Your task to perform on an android device: Empty the shopping cart on costco. Search for logitech g pro on costco, select the first entry, add it to the cart, then select checkout. Image 0: 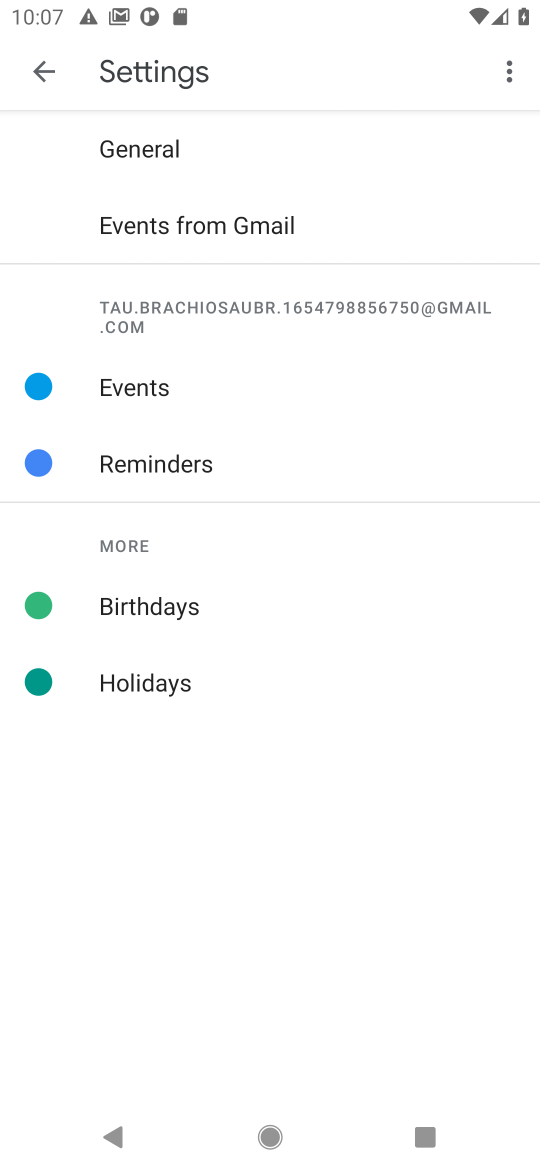
Step 0: press home button
Your task to perform on an android device: Empty the shopping cart on costco. Search for logitech g pro on costco, select the first entry, add it to the cart, then select checkout. Image 1: 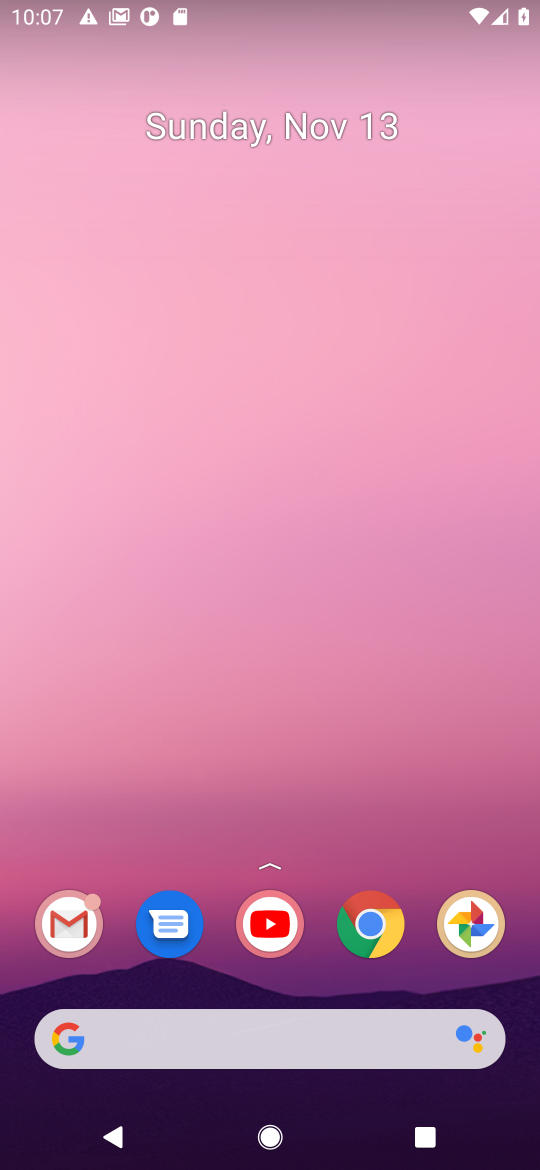
Step 1: click (370, 939)
Your task to perform on an android device: Empty the shopping cart on costco. Search for logitech g pro on costco, select the first entry, add it to the cart, then select checkout. Image 2: 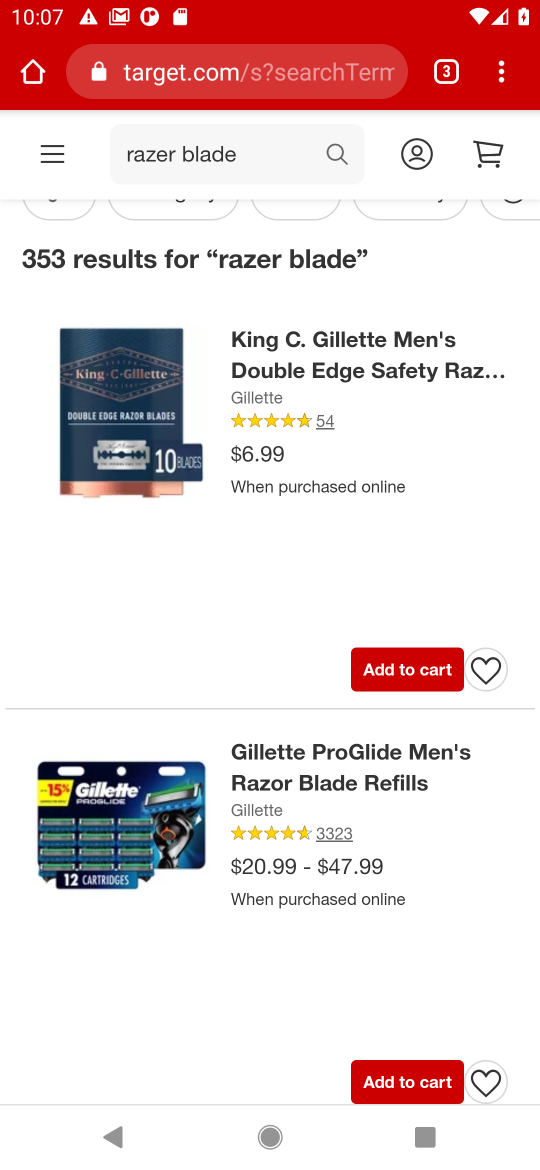
Step 2: click (208, 85)
Your task to perform on an android device: Empty the shopping cart on costco. Search for logitech g pro on costco, select the first entry, add it to the cart, then select checkout. Image 3: 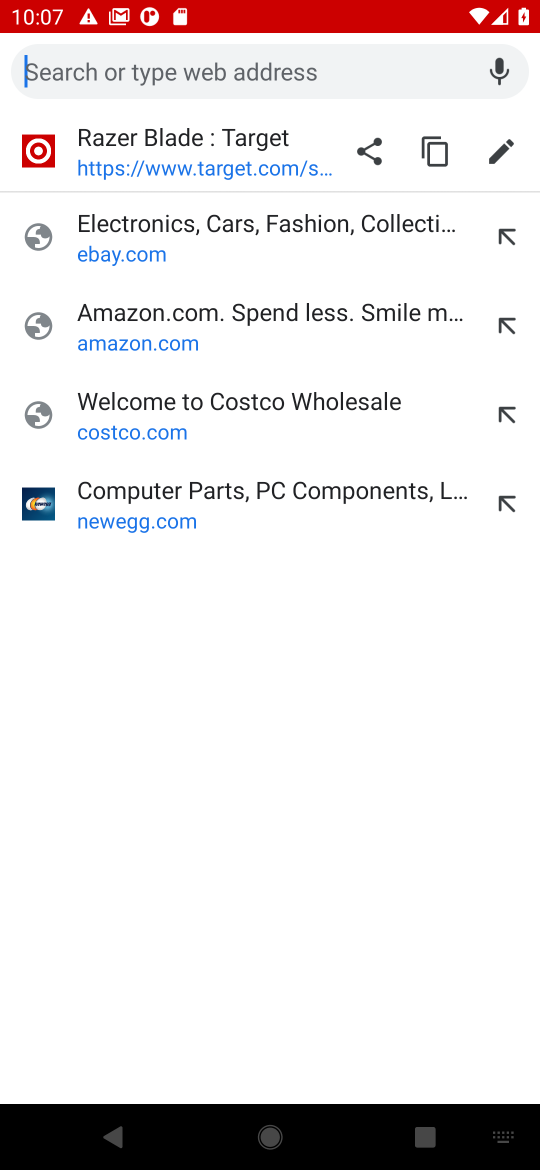
Step 3: click (132, 442)
Your task to perform on an android device: Empty the shopping cart on costco. Search for logitech g pro on costco, select the first entry, add it to the cart, then select checkout. Image 4: 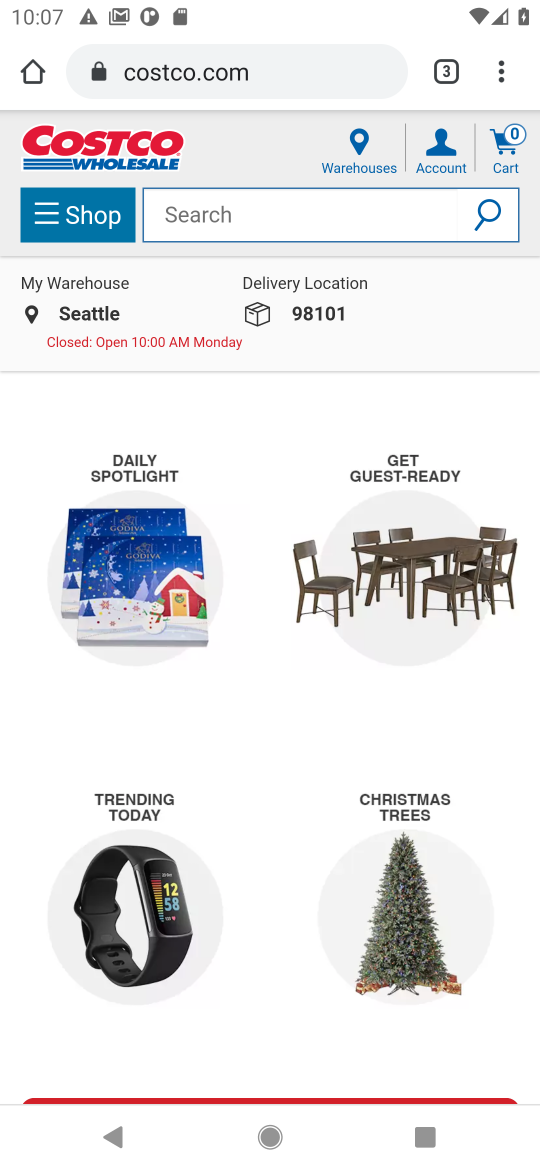
Step 4: click (510, 145)
Your task to perform on an android device: Empty the shopping cart on costco. Search for logitech g pro on costco, select the first entry, add it to the cart, then select checkout. Image 5: 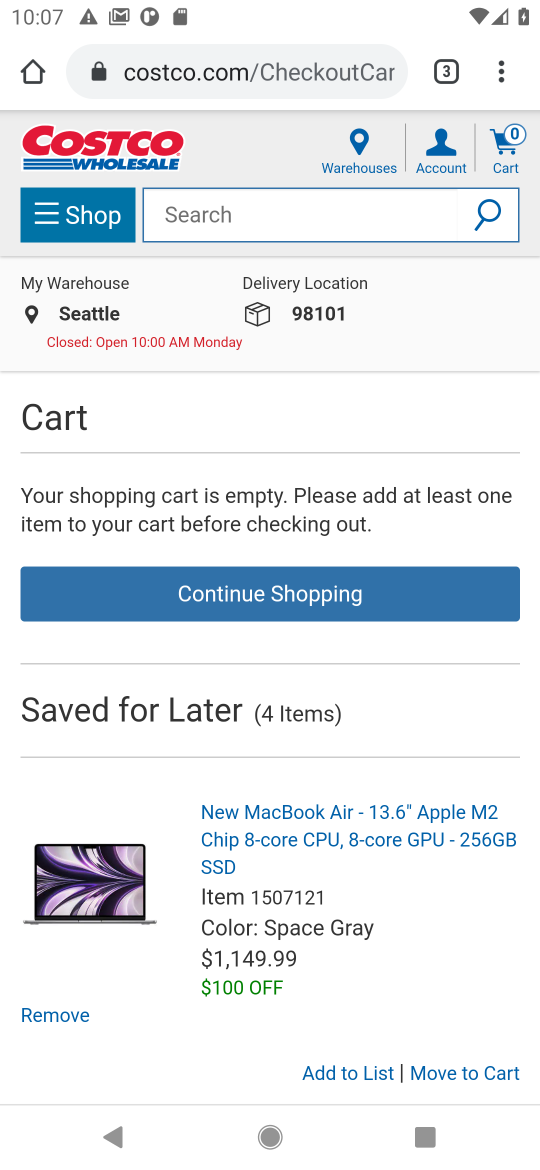
Step 5: click (189, 212)
Your task to perform on an android device: Empty the shopping cart on costco. Search for logitech g pro on costco, select the first entry, add it to the cart, then select checkout. Image 6: 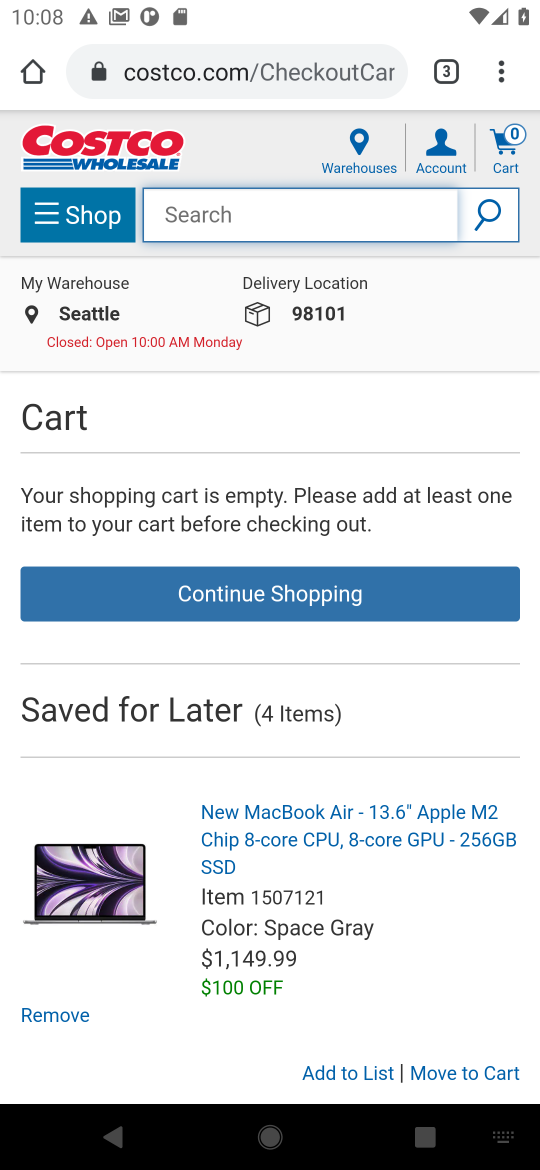
Step 6: type "logitech g pro "
Your task to perform on an android device: Empty the shopping cart on costco. Search for logitech g pro on costco, select the first entry, add it to the cart, then select checkout. Image 7: 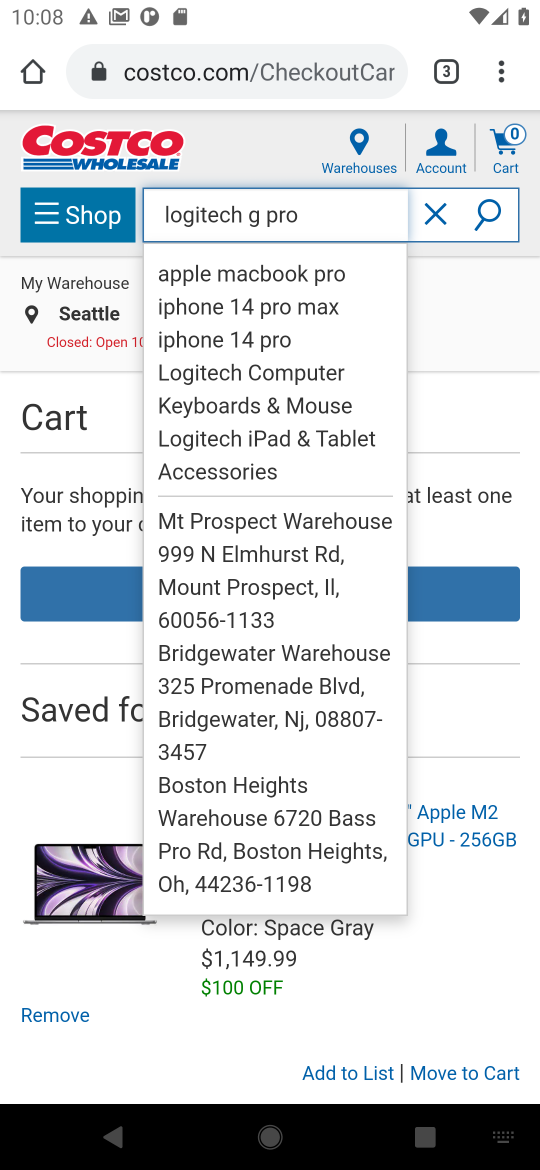
Step 7: click (490, 217)
Your task to perform on an android device: Empty the shopping cart on costco. Search for logitech g pro on costco, select the first entry, add it to the cart, then select checkout. Image 8: 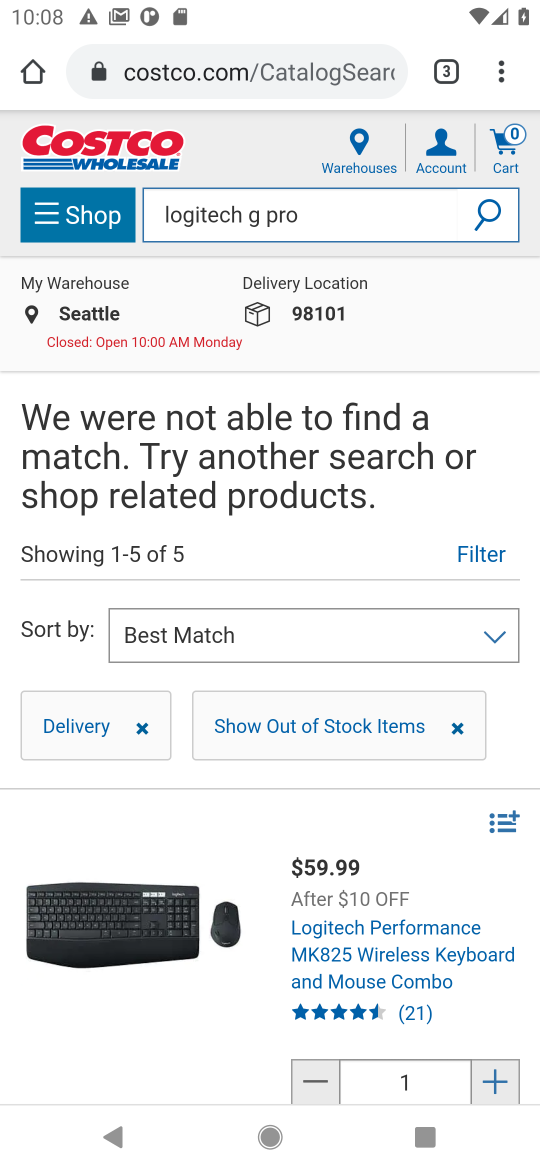
Step 8: task complete